Your task to perform on an android device: Open notification settings Image 0: 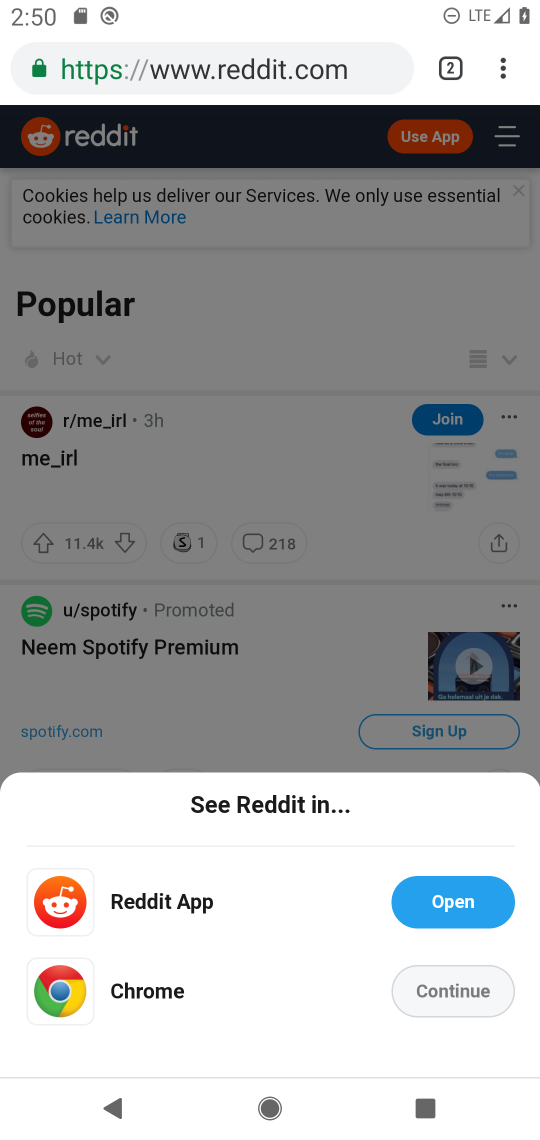
Step 0: press home button
Your task to perform on an android device: Open notification settings Image 1: 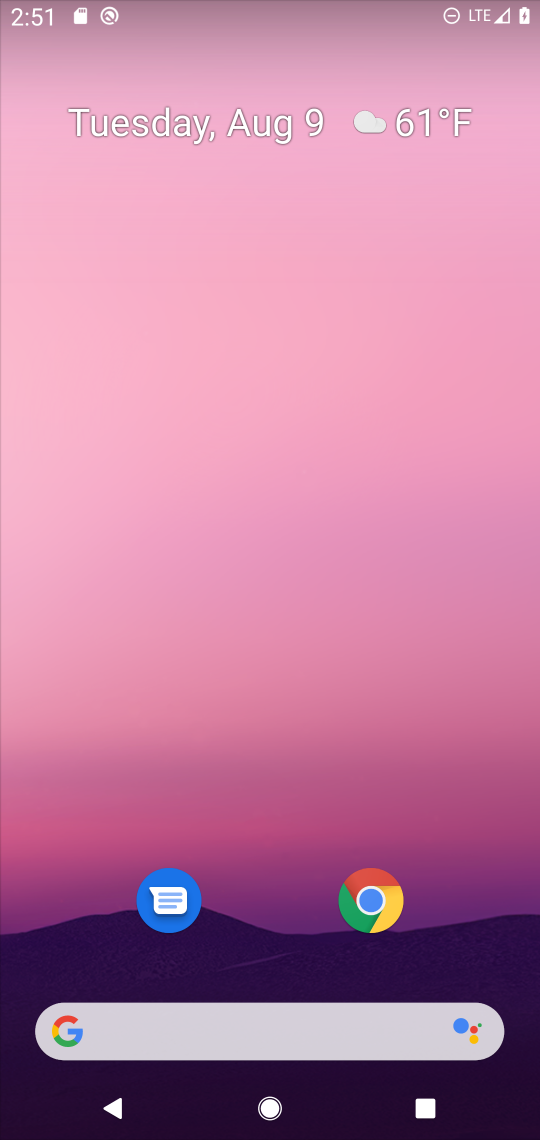
Step 1: drag from (267, 924) to (301, 313)
Your task to perform on an android device: Open notification settings Image 2: 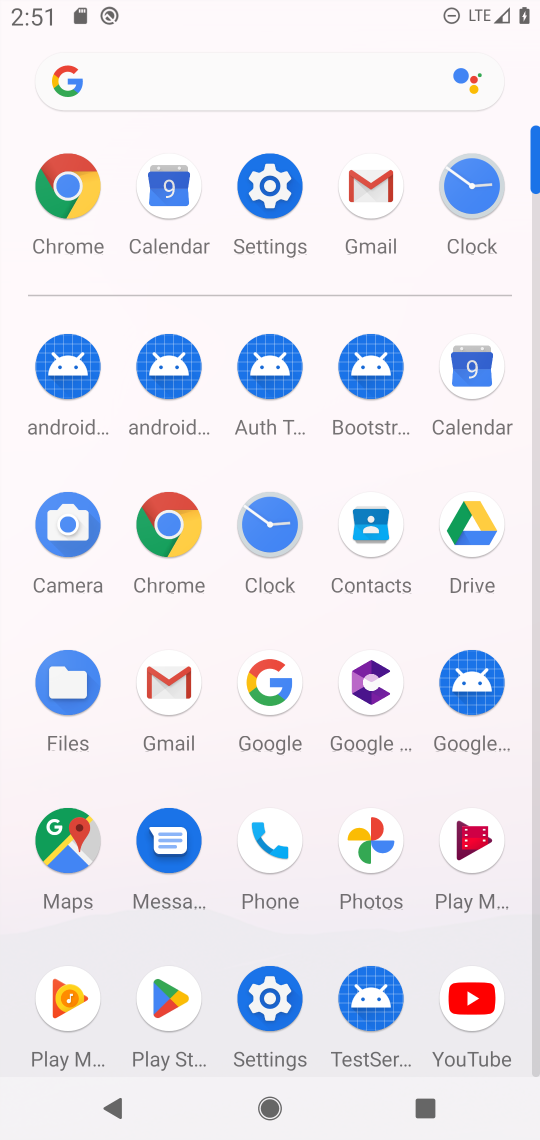
Step 2: click (272, 197)
Your task to perform on an android device: Open notification settings Image 3: 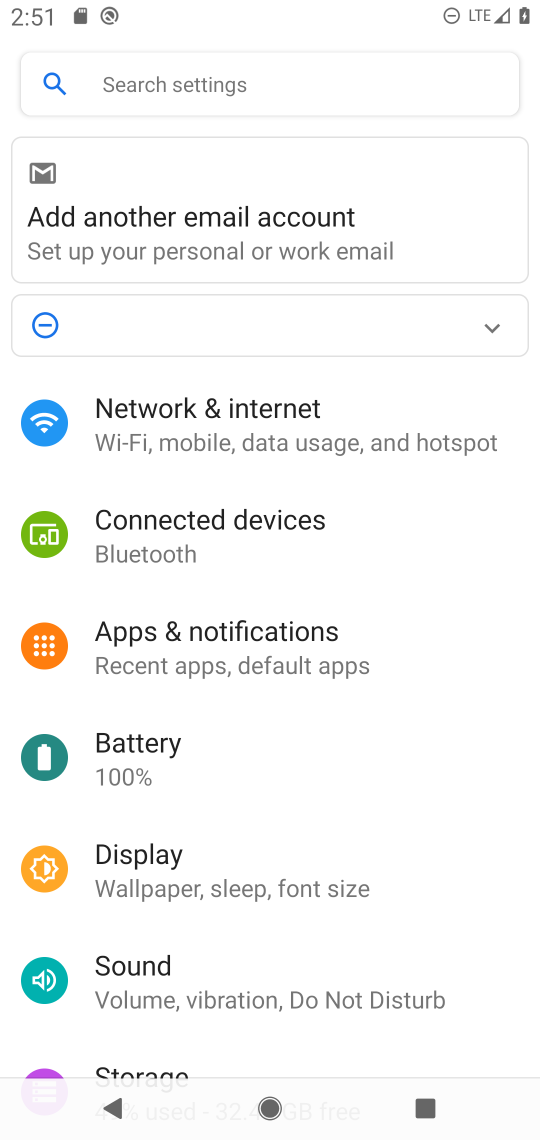
Step 3: drag from (463, 674) to (464, 541)
Your task to perform on an android device: Open notification settings Image 4: 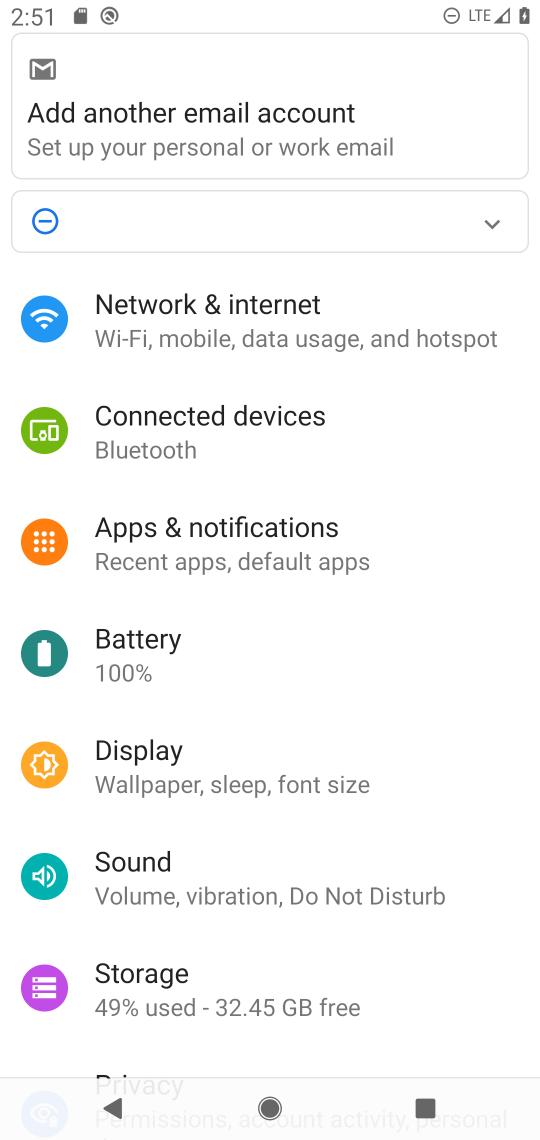
Step 4: drag from (442, 684) to (446, 546)
Your task to perform on an android device: Open notification settings Image 5: 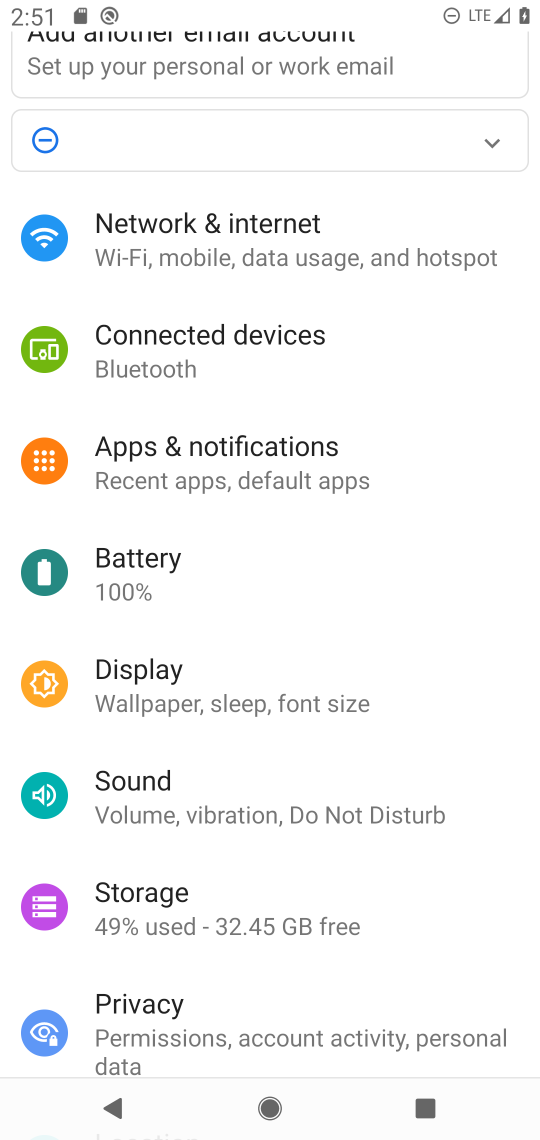
Step 5: drag from (457, 667) to (470, 530)
Your task to perform on an android device: Open notification settings Image 6: 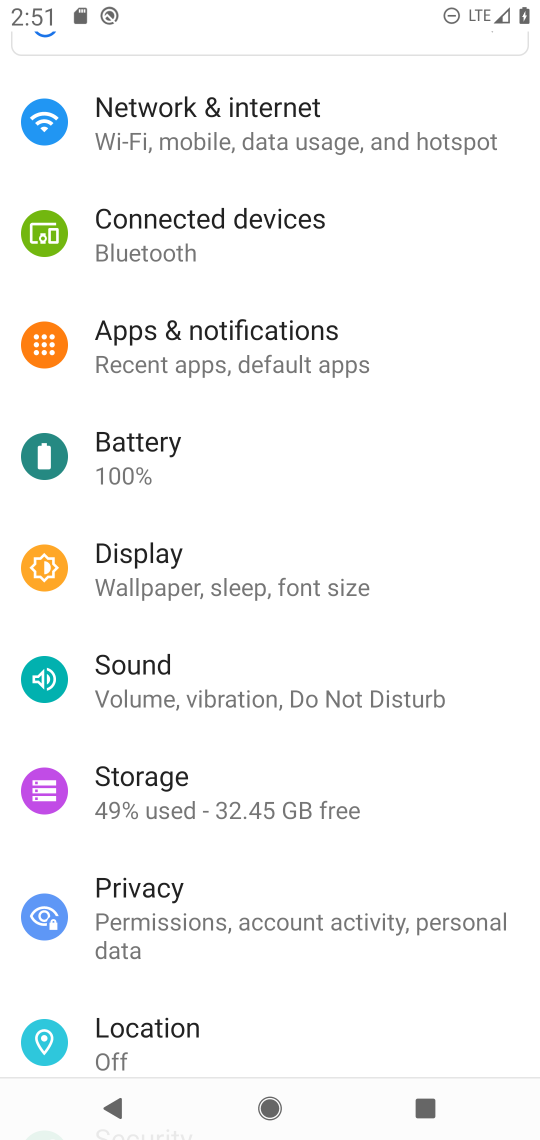
Step 6: drag from (446, 657) to (448, 482)
Your task to perform on an android device: Open notification settings Image 7: 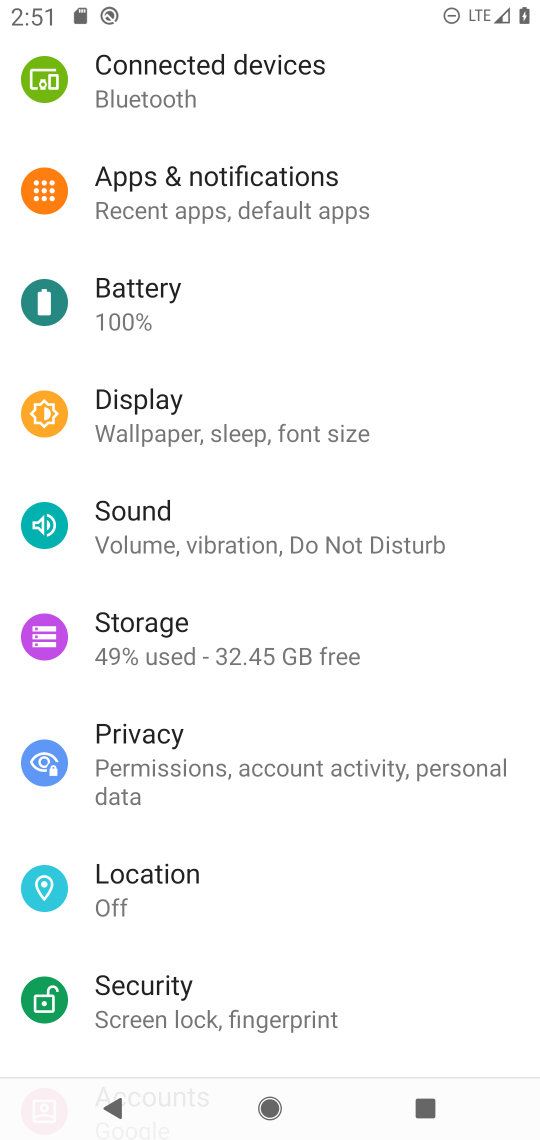
Step 7: drag from (441, 281) to (444, 418)
Your task to perform on an android device: Open notification settings Image 8: 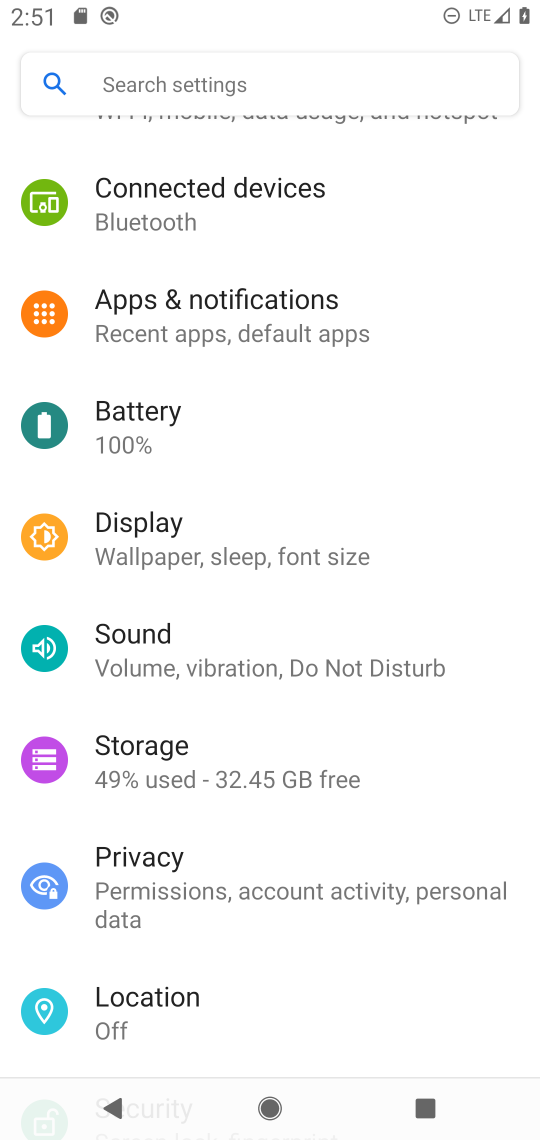
Step 8: drag from (444, 235) to (450, 445)
Your task to perform on an android device: Open notification settings Image 9: 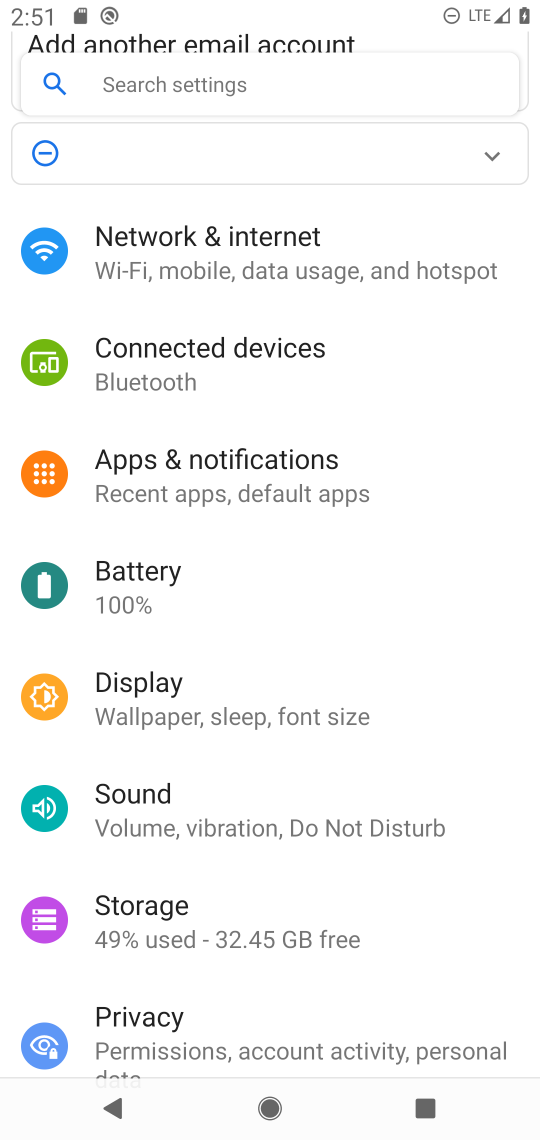
Step 9: click (411, 471)
Your task to perform on an android device: Open notification settings Image 10: 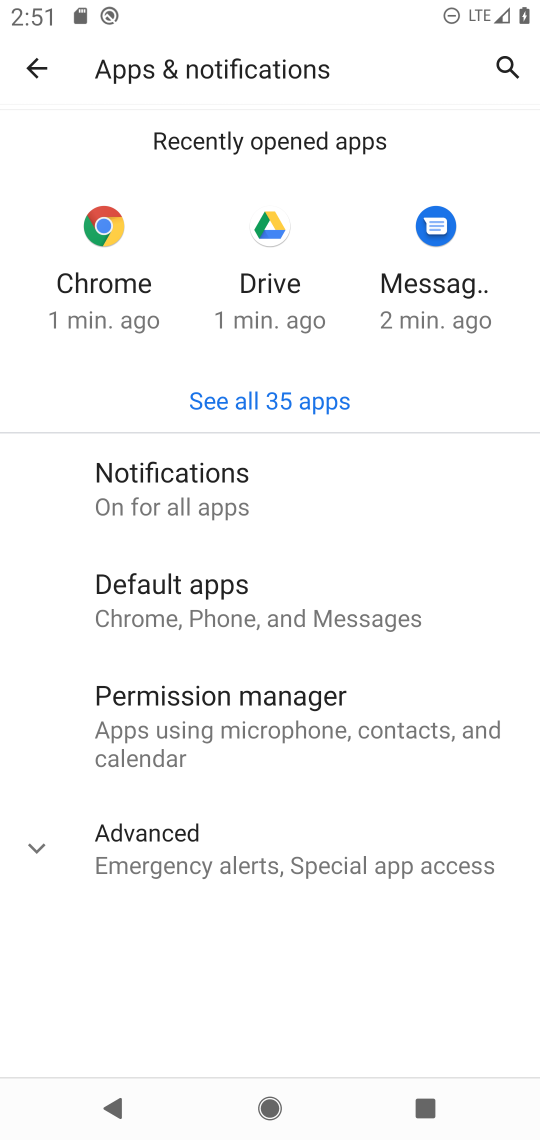
Step 10: click (264, 497)
Your task to perform on an android device: Open notification settings Image 11: 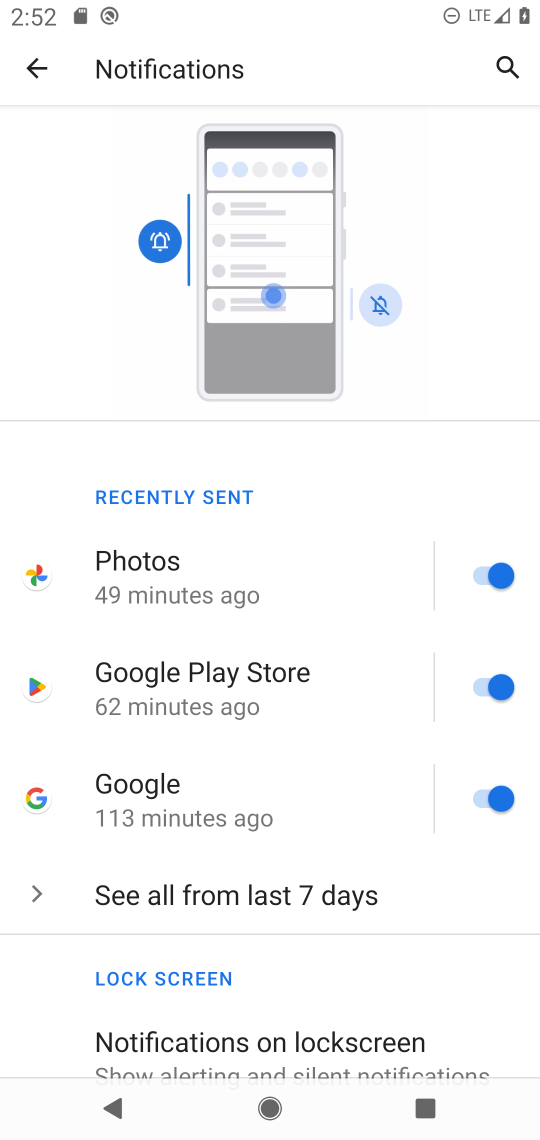
Step 11: task complete